Your task to perform on an android device: uninstall "Truecaller" Image 0: 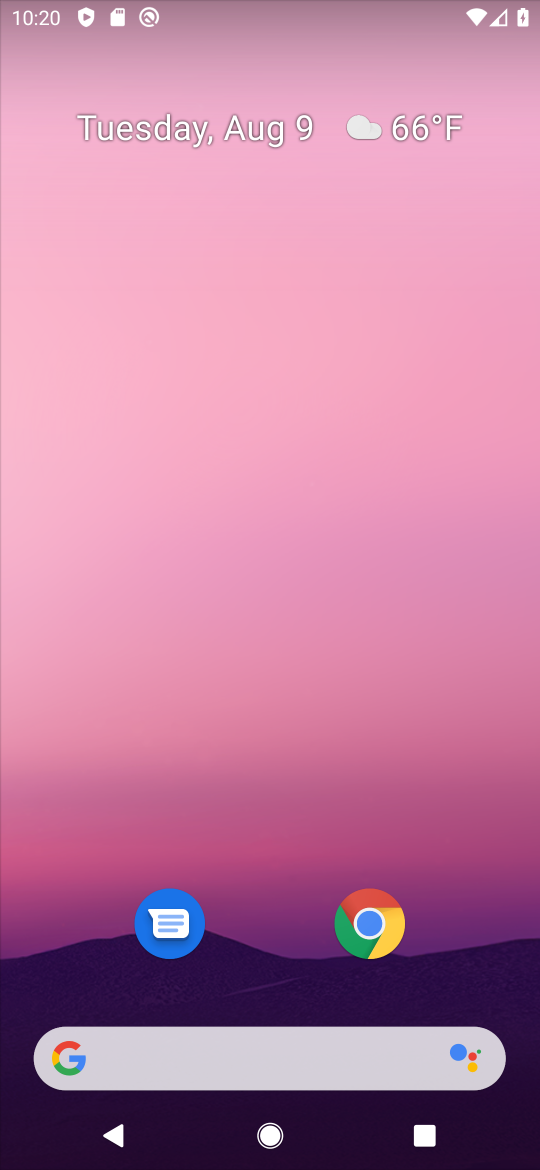
Step 0: press home button
Your task to perform on an android device: uninstall "Truecaller" Image 1: 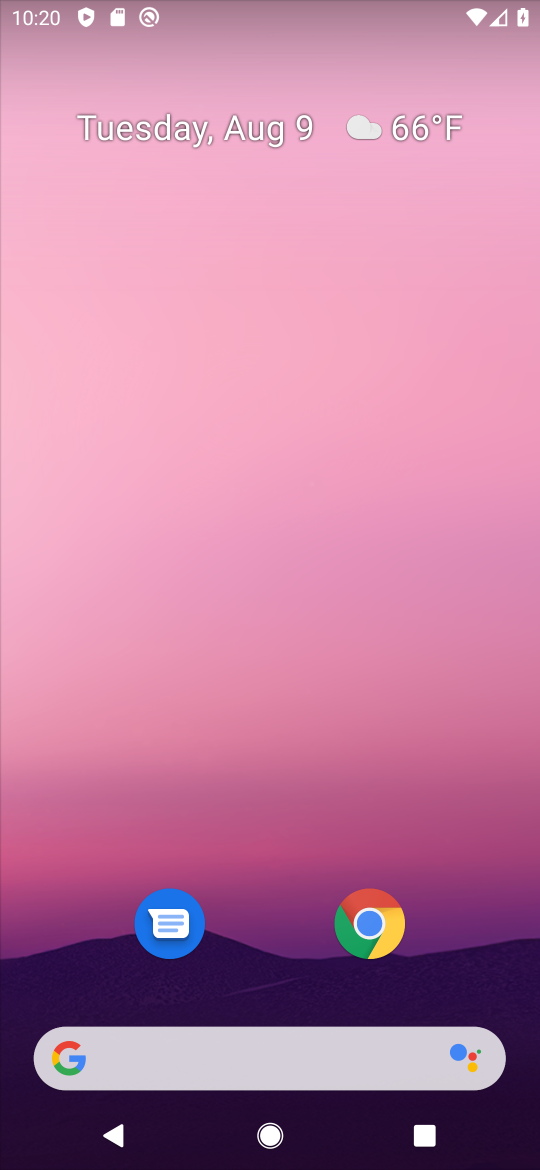
Step 1: drag from (299, 983) to (320, 63)
Your task to perform on an android device: uninstall "Truecaller" Image 2: 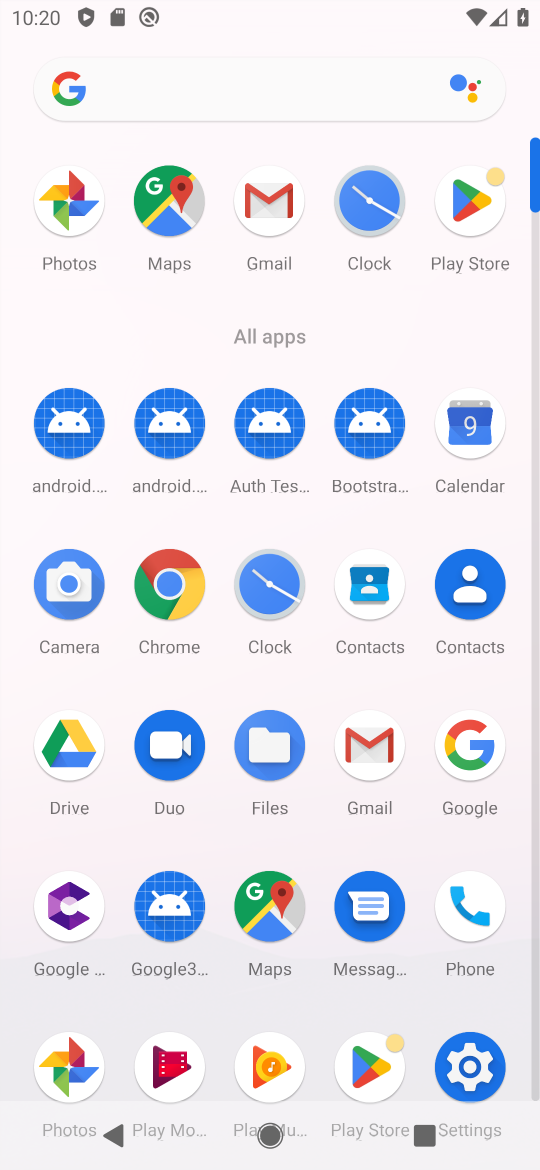
Step 2: click (473, 191)
Your task to perform on an android device: uninstall "Truecaller" Image 3: 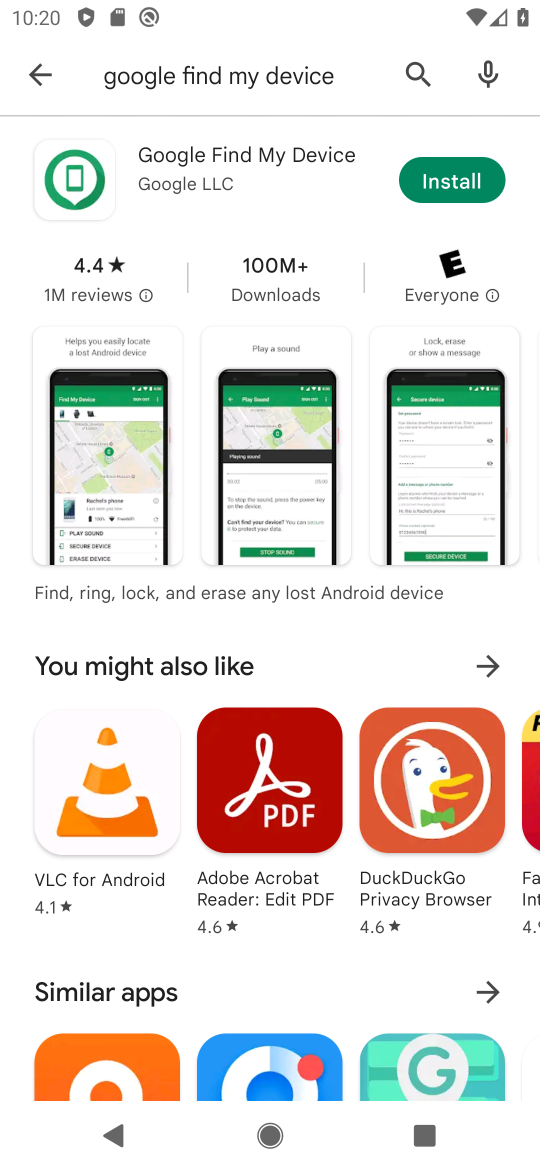
Step 3: click (412, 61)
Your task to perform on an android device: uninstall "Truecaller" Image 4: 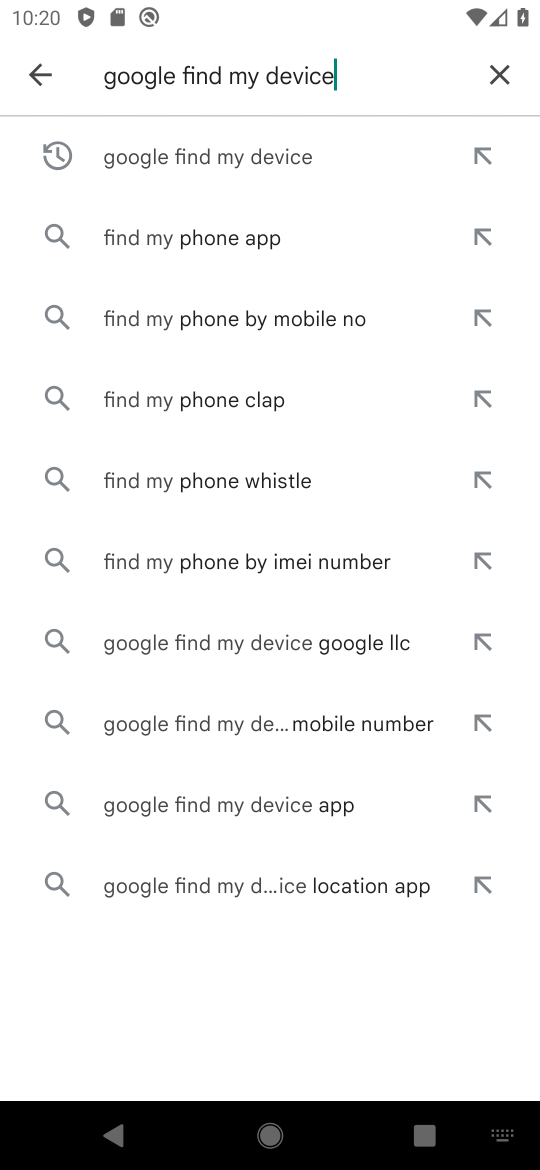
Step 4: click (491, 81)
Your task to perform on an android device: uninstall "Truecaller" Image 5: 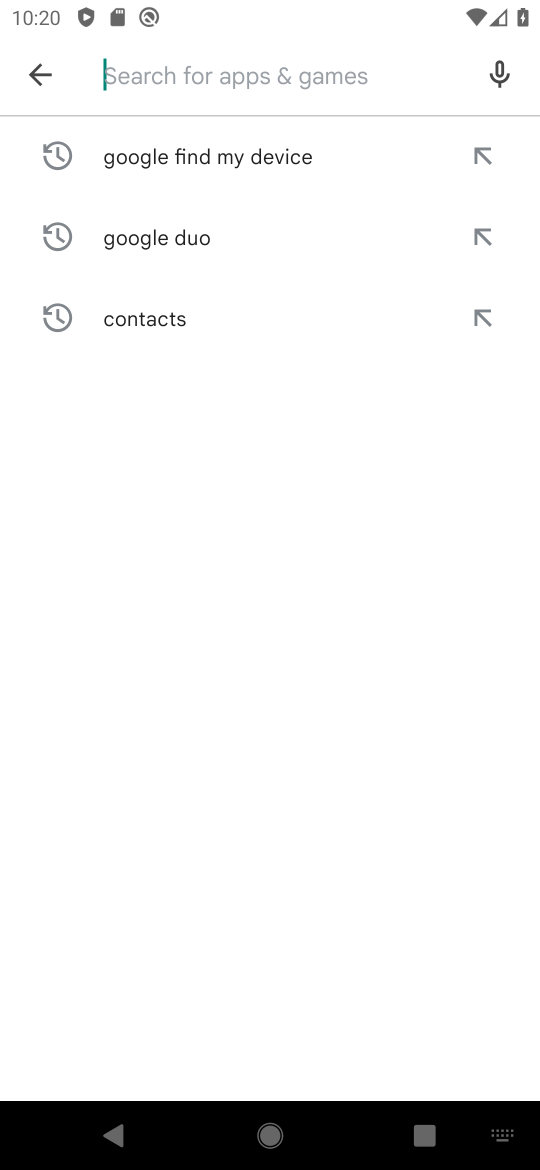
Step 5: type "Truecaller"
Your task to perform on an android device: uninstall "Truecaller" Image 6: 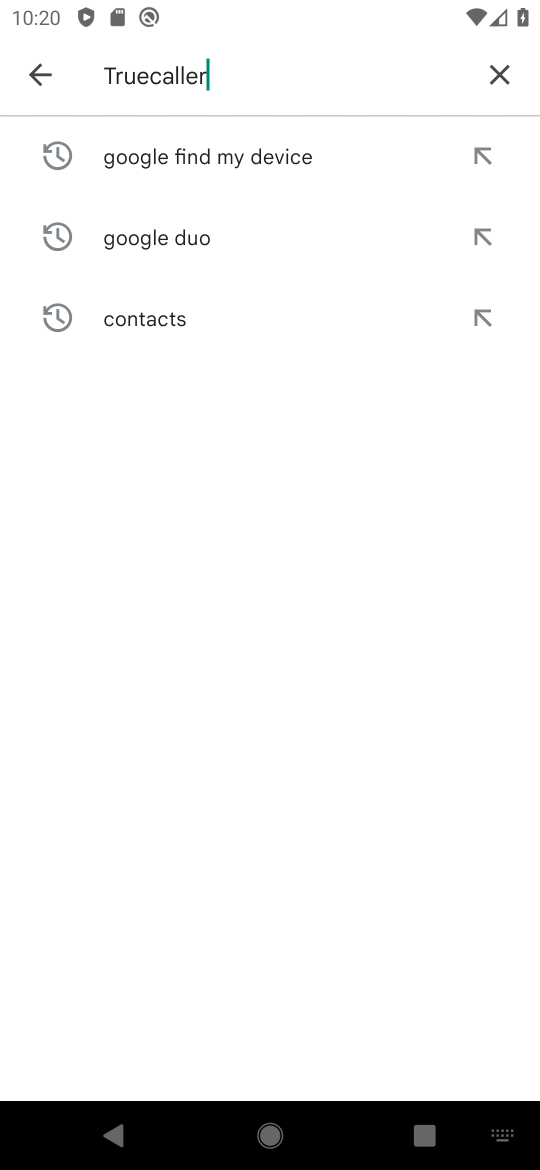
Step 6: type ""
Your task to perform on an android device: uninstall "Truecaller" Image 7: 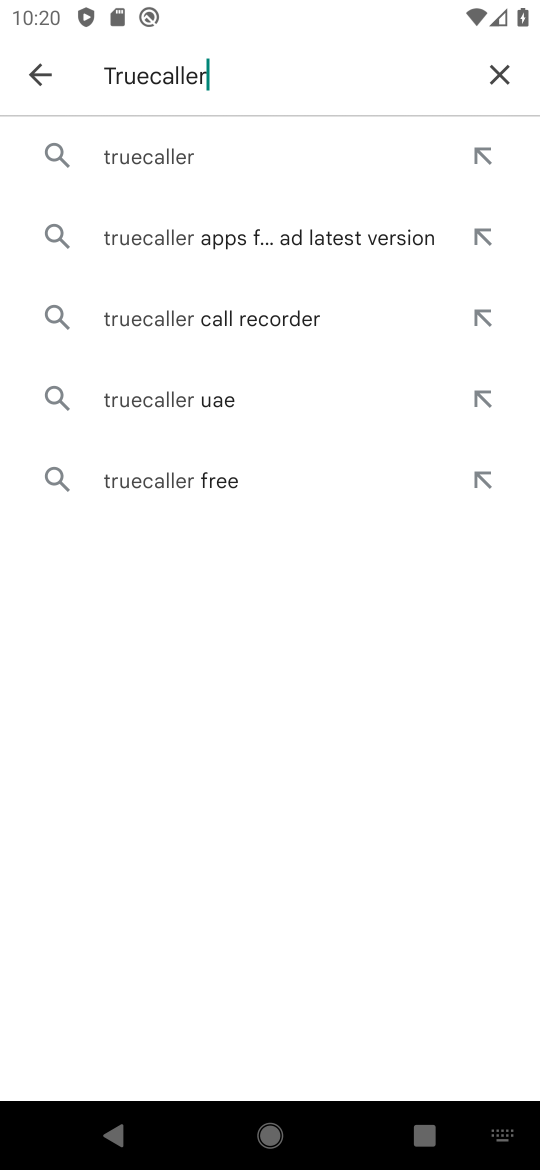
Step 7: click (197, 153)
Your task to perform on an android device: uninstall "Truecaller" Image 8: 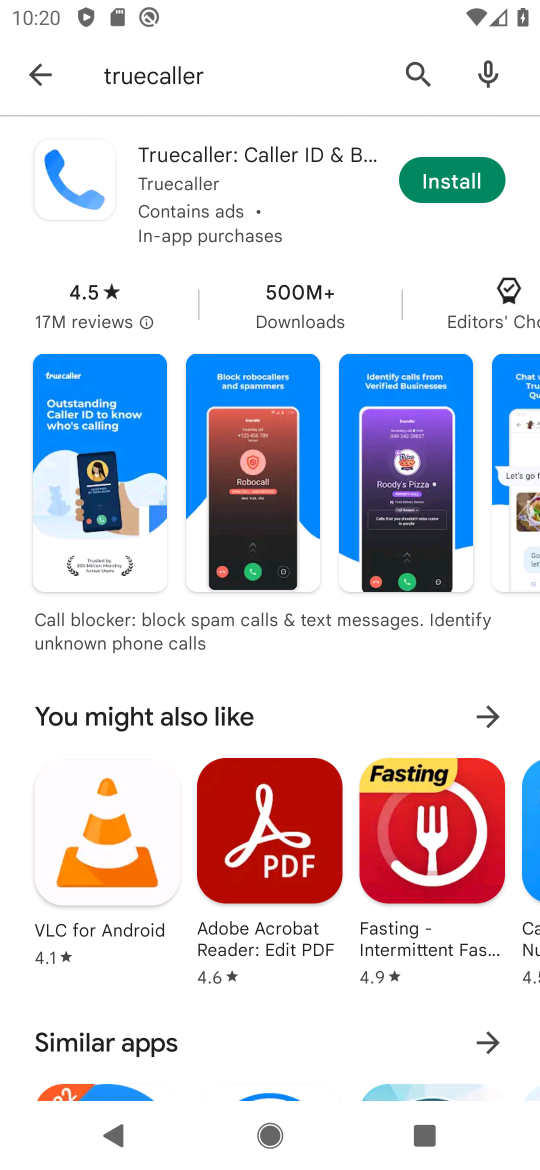
Step 8: task complete